Your task to perform on an android device: Open the calendar and show me this week's events? Image 0: 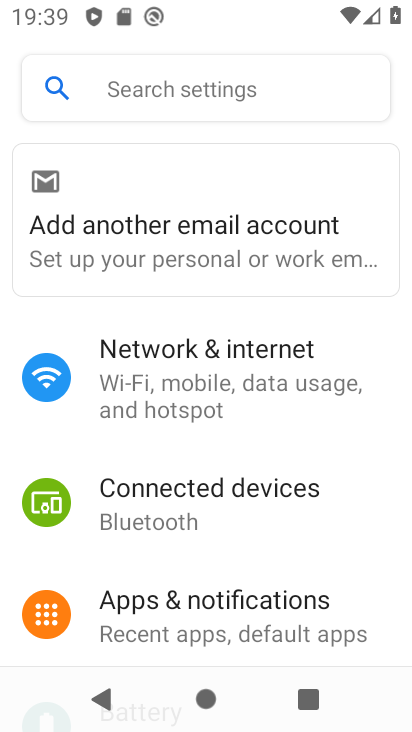
Step 0: press home button
Your task to perform on an android device: Open the calendar and show me this week's events? Image 1: 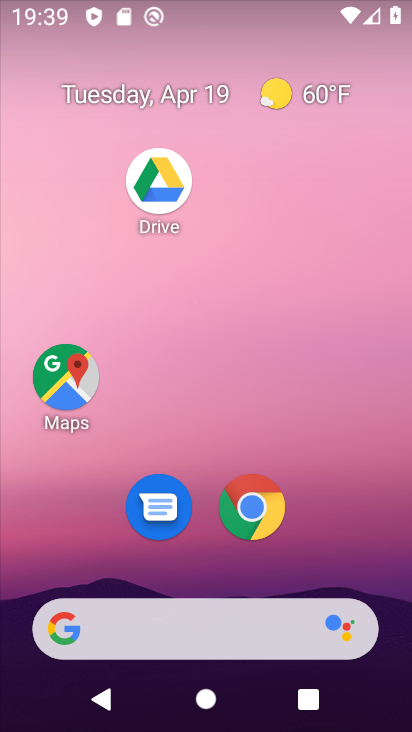
Step 1: drag from (344, 499) to (312, 130)
Your task to perform on an android device: Open the calendar and show me this week's events? Image 2: 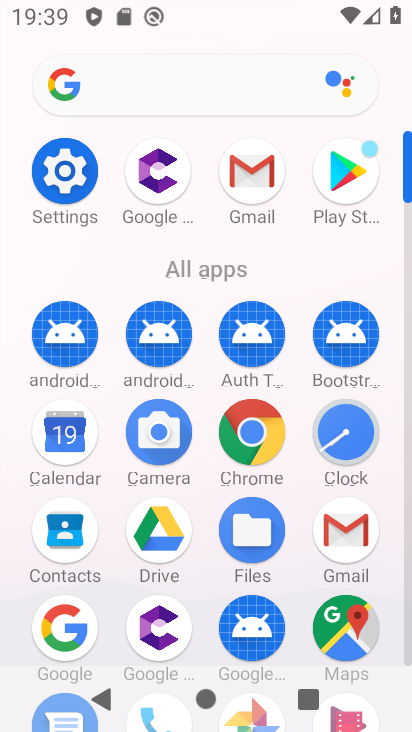
Step 2: click (57, 426)
Your task to perform on an android device: Open the calendar and show me this week's events? Image 3: 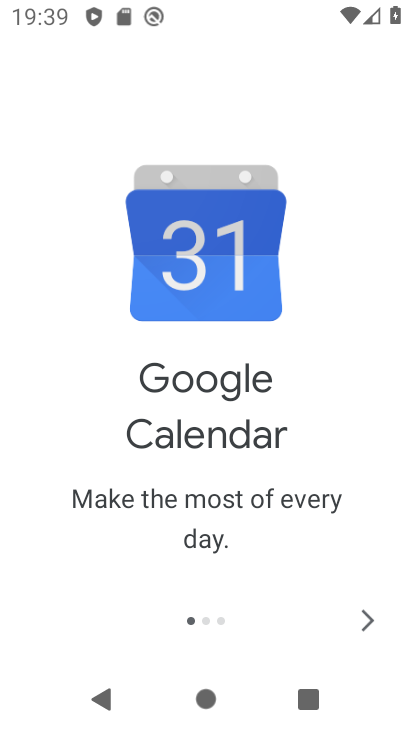
Step 3: click (365, 614)
Your task to perform on an android device: Open the calendar and show me this week's events? Image 4: 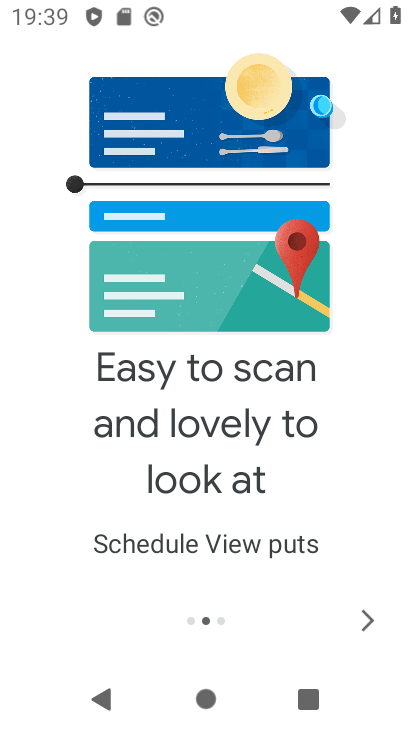
Step 4: click (365, 616)
Your task to perform on an android device: Open the calendar and show me this week's events? Image 5: 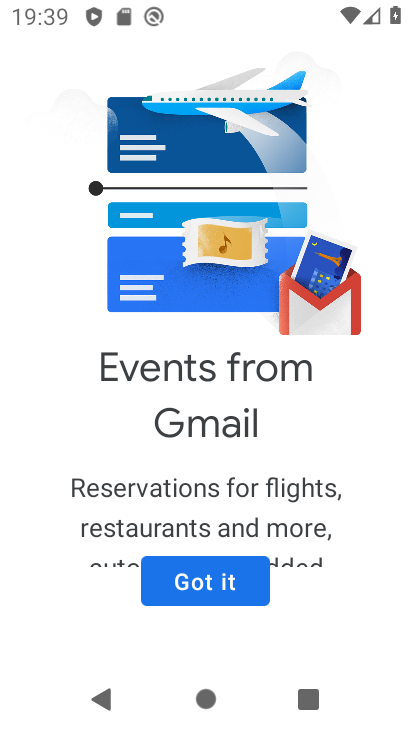
Step 5: click (253, 574)
Your task to perform on an android device: Open the calendar and show me this week's events? Image 6: 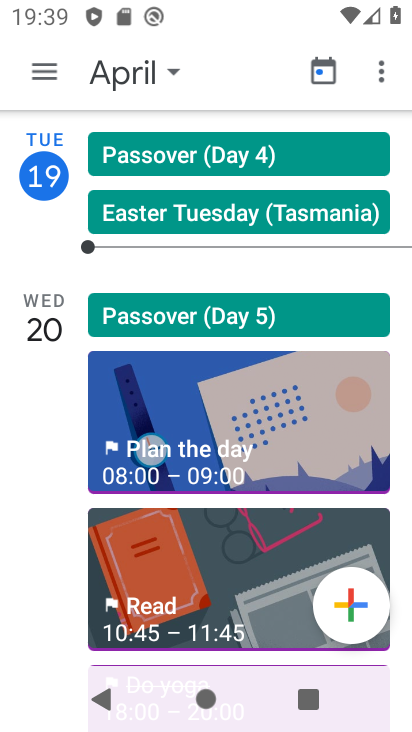
Step 6: click (49, 74)
Your task to perform on an android device: Open the calendar and show me this week's events? Image 7: 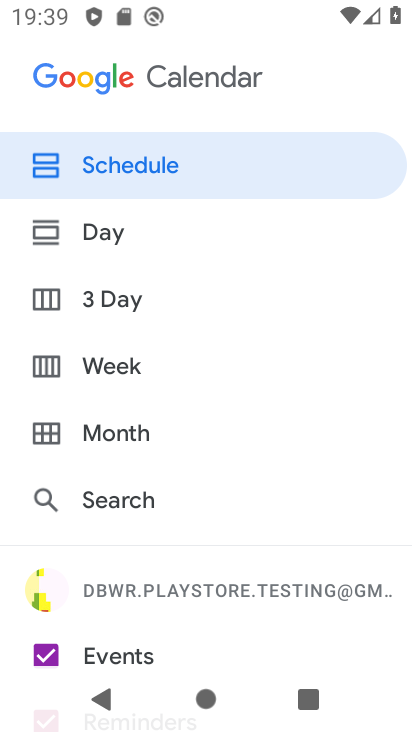
Step 7: click (46, 359)
Your task to perform on an android device: Open the calendar and show me this week's events? Image 8: 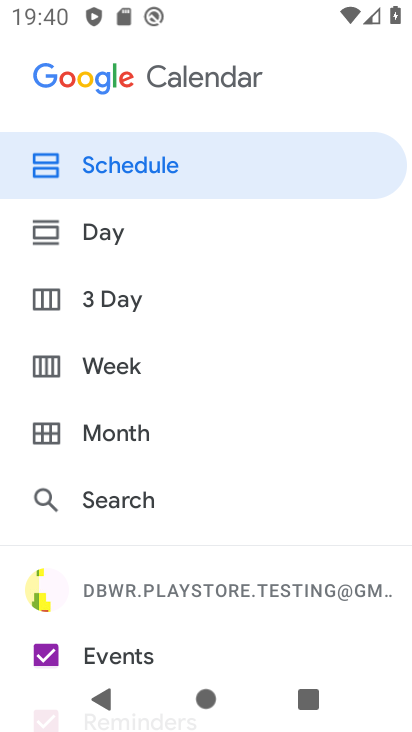
Step 8: click (46, 359)
Your task to perform on an android device: Open the calendar and show me this week's events? Image 9: 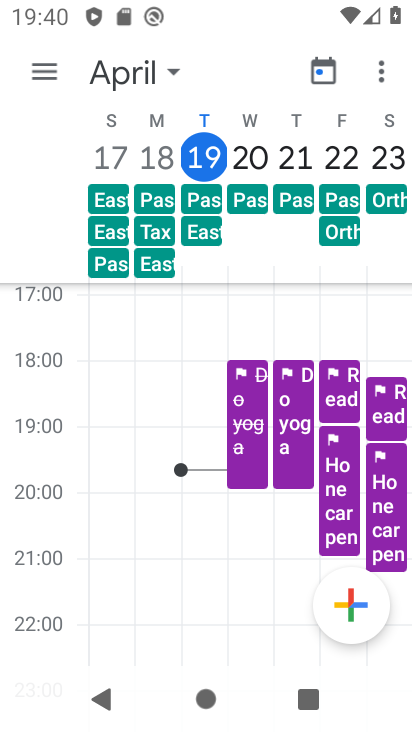
Step 9: task complete